Your task to perform on an android device: Search for handmade jewelry on Etsy. Image 0: 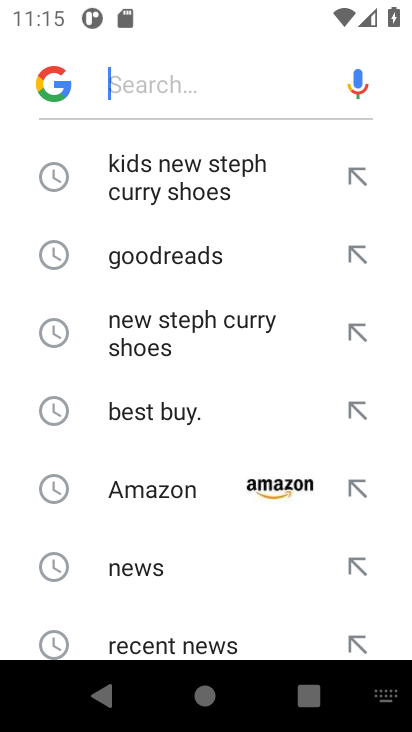
Step 0: click (221, 494)
Your task to perform on an android device: Search for handmade jewelry on Etsy. Image 1: 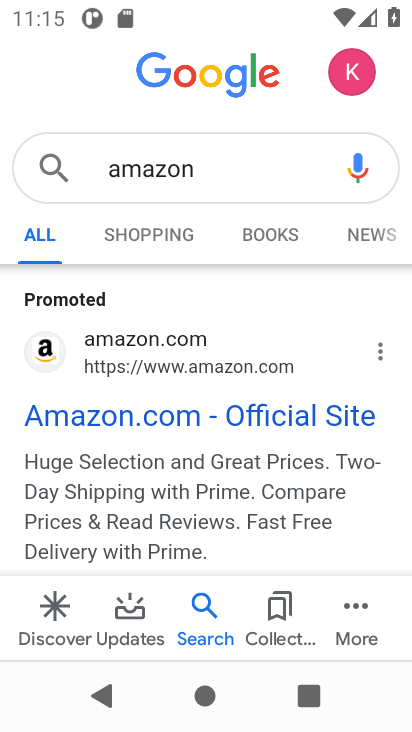
Step 1: click (297, 396)
Your task to perform on an android device: Search for handmade jewelry on Etsy. Image 2: 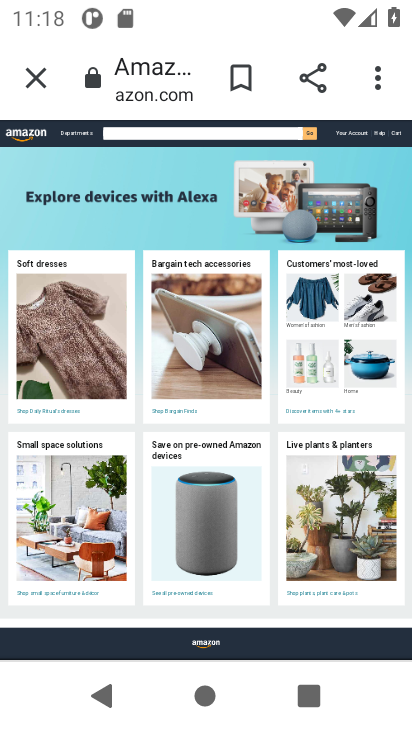
Step 2: task complete